Your task to perform on an android device: turn off location Image 0: 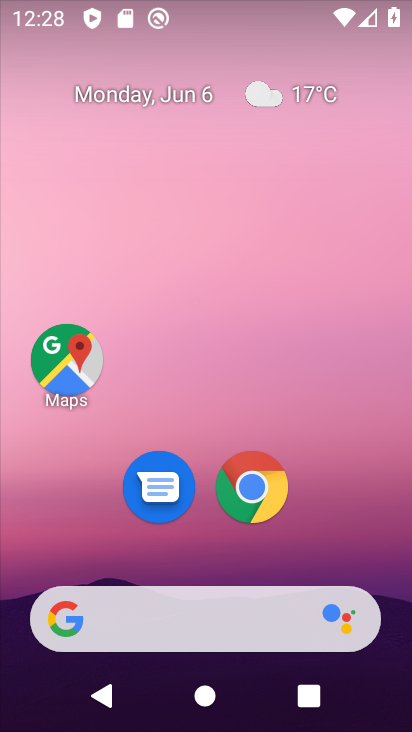
Step 0: drag from (137, 525) to (168, 119)
Your task to perform on an android device: turn off location Image 1: 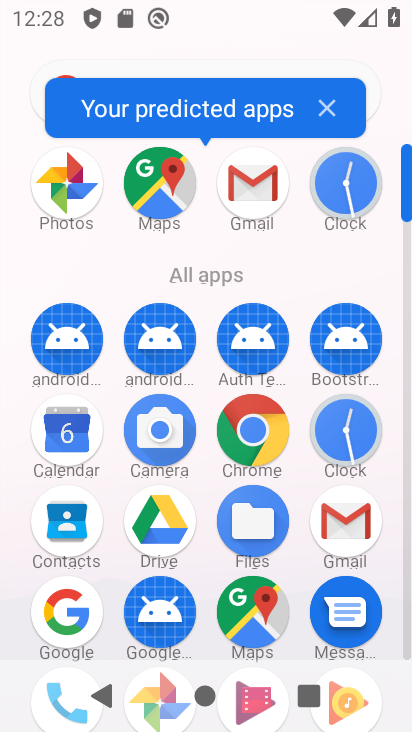
Step 1: drag from (108, 581) to (173, 90)
Your task to perform on an android device: turn off location Image 2: 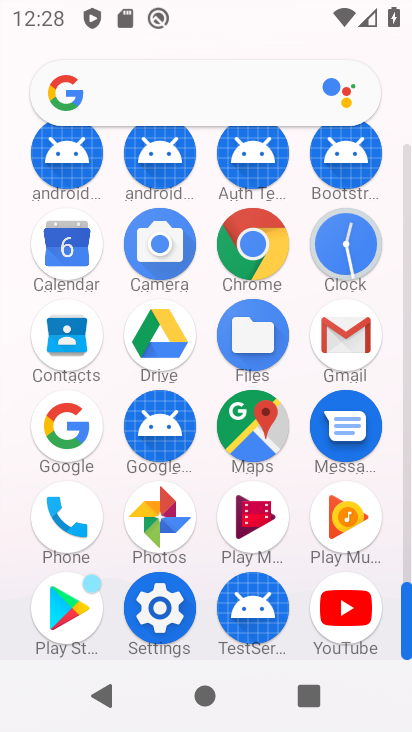
Step 2: click (153, 606)
Your task to perform on an android device: turn off location Image 3: 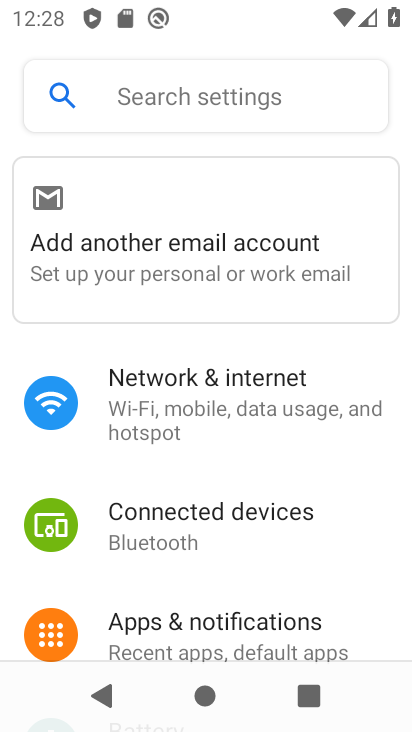
Step 3: drag from (214, 587) to (284, 228)
Your task to perform on an android device: turn off location Image 4: 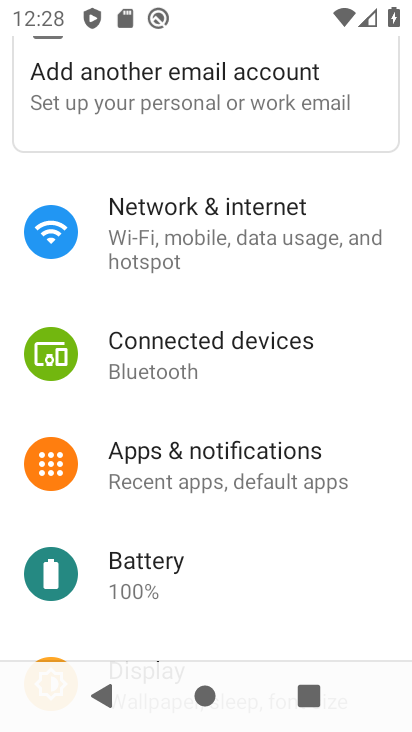
Step 4: drag from (198, 578) to (255, 154)
Your task to perform on an android device: turn off location Image 5: 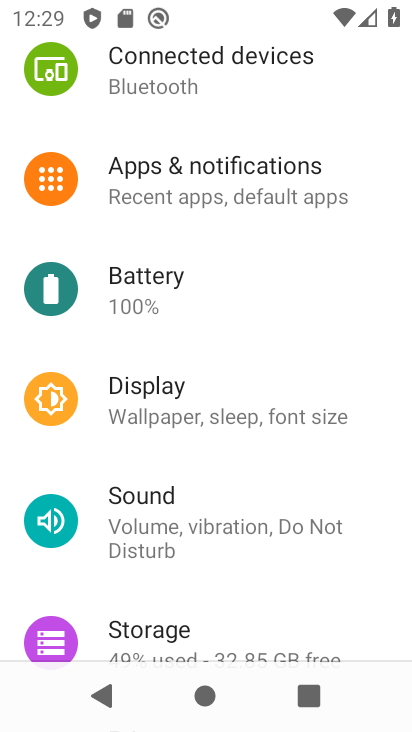
Step 5: drag from (208, 584) to (289, 183)
Your task to perform on an android device: turn off location Image 6: 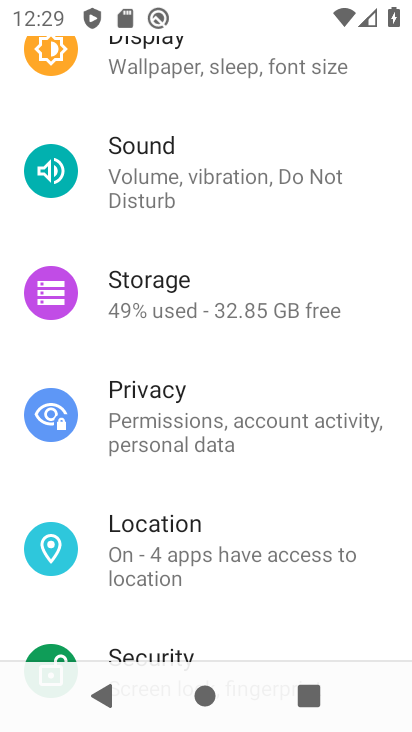
Step 6: click (165, 557)
Your task to perform on an android device: turn off location Image 7: 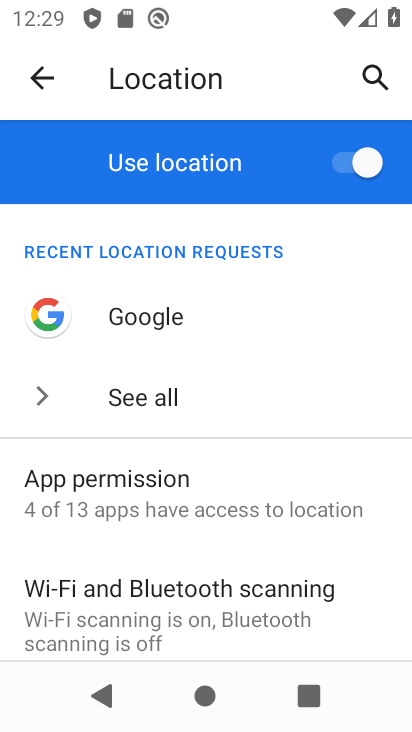
Step 7: click (363, 155)
Your task to perform on an android device: turn off location Image 8: 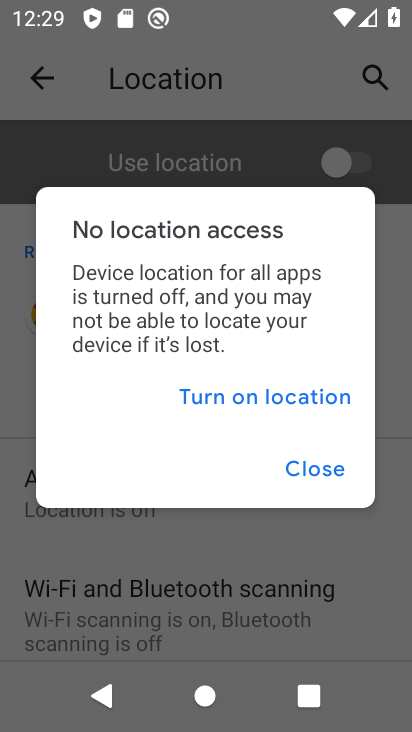
Step 8: click (314, 468)
Your task to perform on an android device: turn off location Image 9: 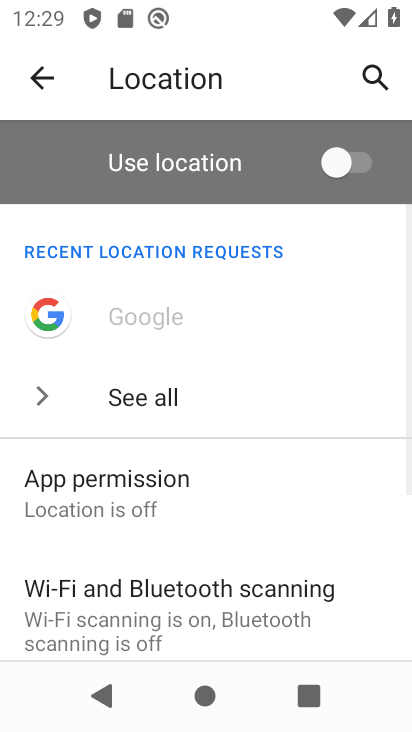
Step 9: task complete